Your task to perform on an android device: Open the phone app and click the voicemail tab. Image 0: 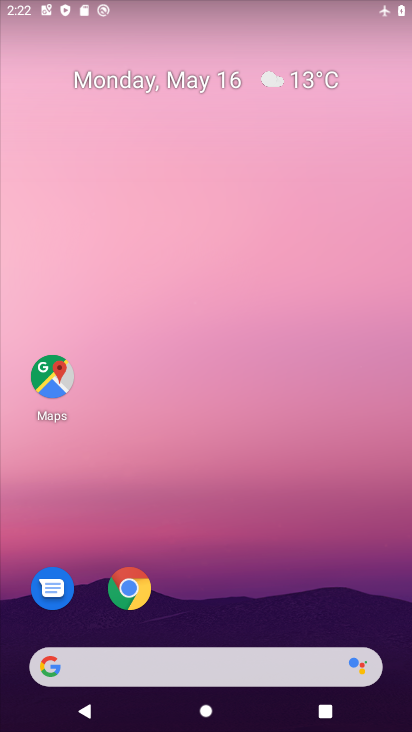
Step 0: drag from (294, 613) to (327, 38)
Your task to perform on an android device: Open the phone app and click the voicemail tab. Image 1: 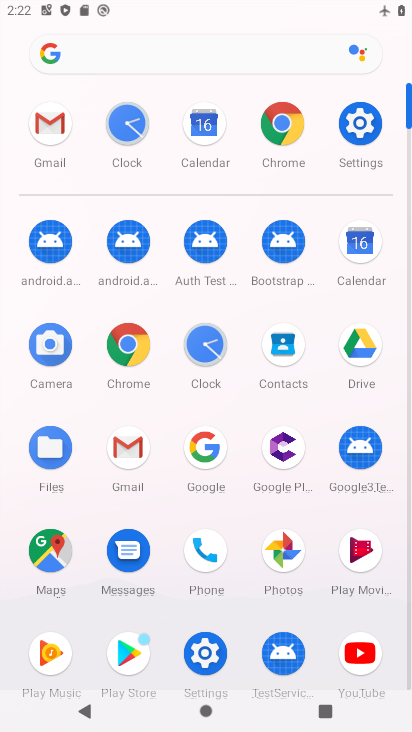
Step 1: click (188, 560)
Your task to perform on an android device: Open the phone app and click the voicemail tab. Image 2: 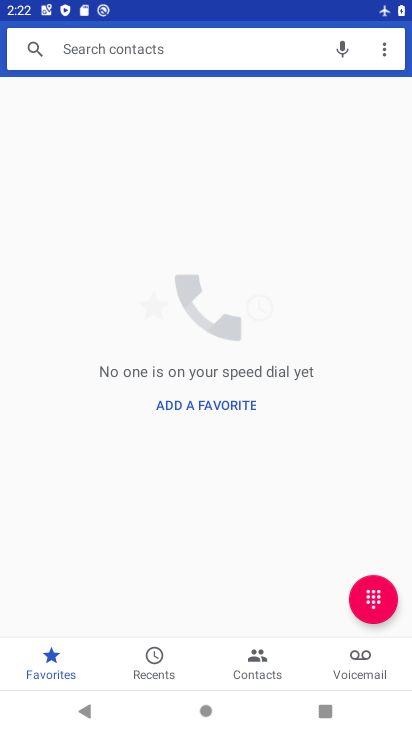
Step 2: click (348, 654)
Your task to perform on an android device: Open the phone app and click the voicemail tab. Image 3: 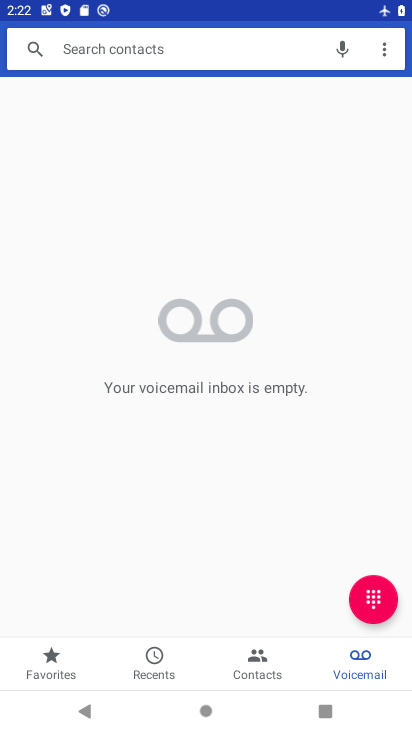
Step 3: task complete